Your task to perform on an android device: Open Google Maps and go to "Timeline" Image 0: 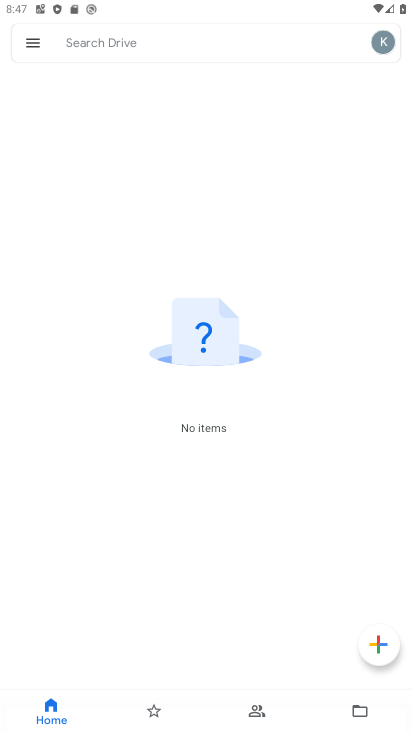
Step 0: press home button
Your task to perform on an android device: Open Google Maps and go to "Timeline" Image 1: 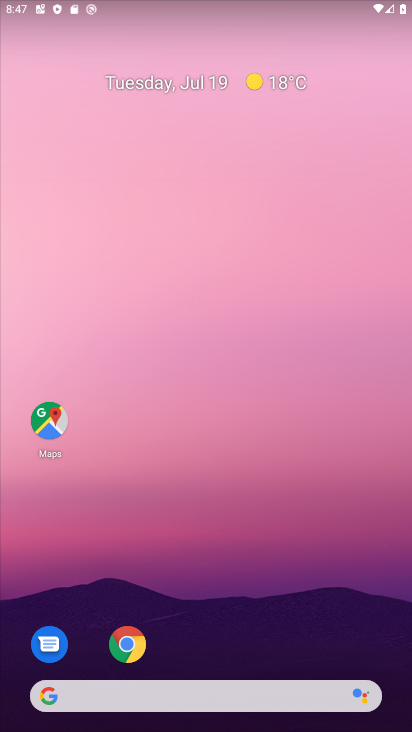
Step 1: drag from (209, 728) to (180, 379)
Your task to perform on an android device: Open Google Maps and go to "Timeline" Image 2: 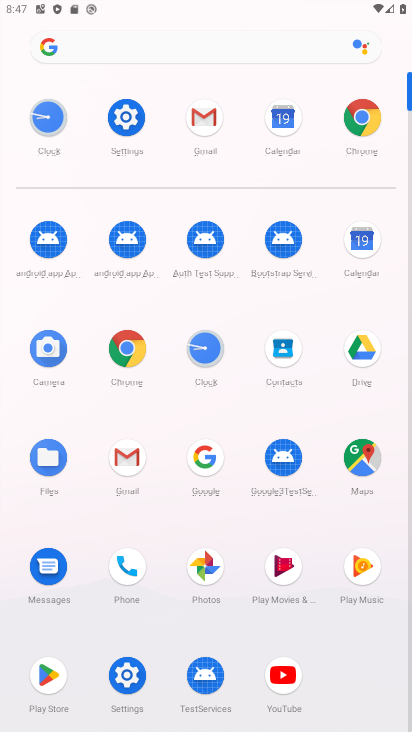
Step 2: click (362, 459)
Your task to perform on an android device: Open Google Maps and go to "Timeline" Image 3: 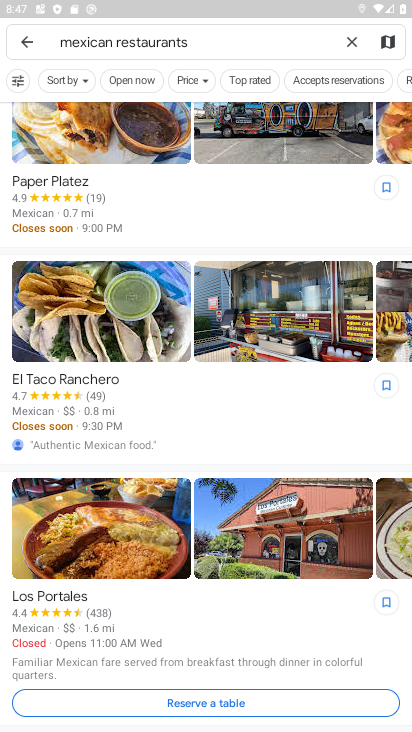
Step 3: click (31, 43)
Your task to perform on an android device: Open Google Maps and go to "Timeline" Image 4: 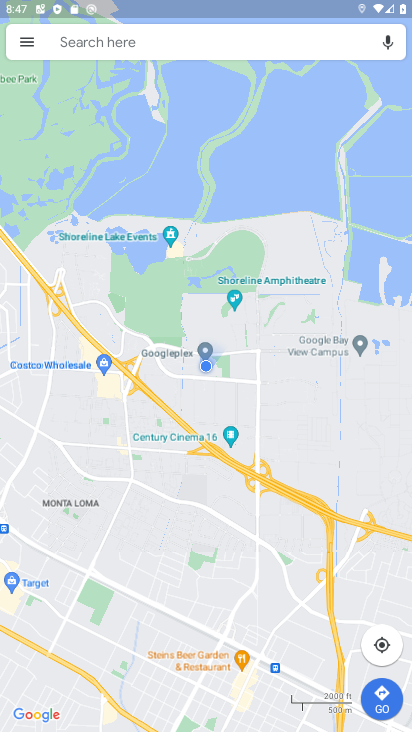
Step 4: click (31, 43)
Your task to perform on an android device: Open Google Maps and go to "Timeline" Image 5: 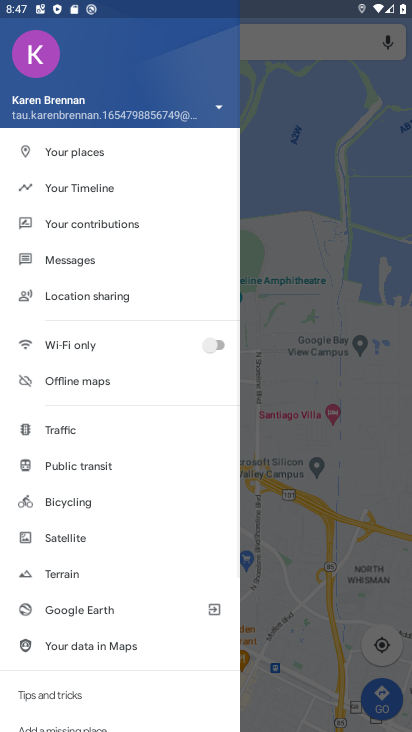
Step 5: click (81, 183)
Your task to perform on an android device: Open Google Maps and go to "Timeline" Image 6: 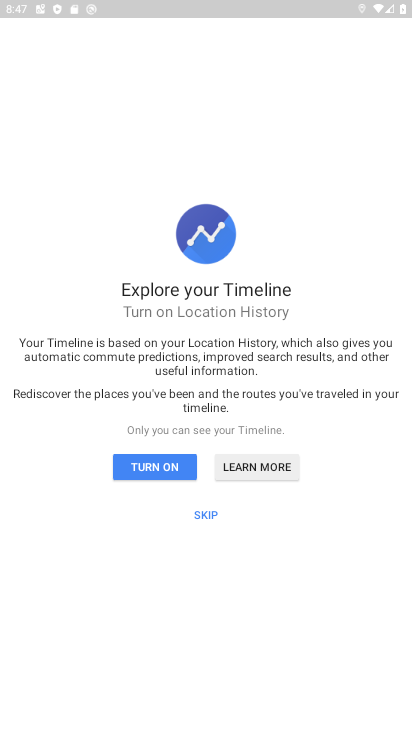
Step 6: click (206, 513)
Your task to perform on an android device: Open Google Maps and go to "Timeline" Image 7: 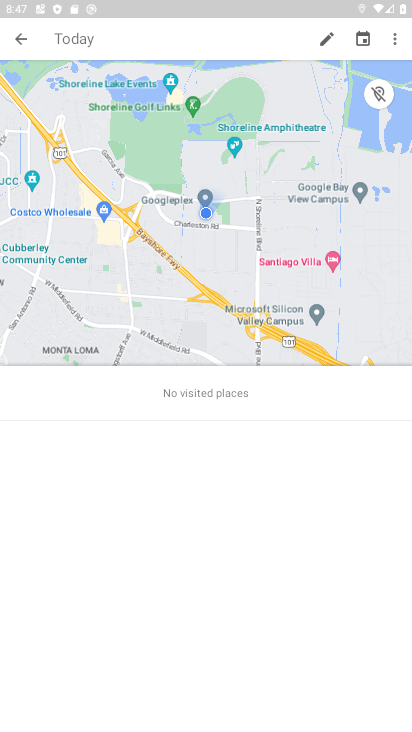
Step 7: task complete